Your task to perform on an android device: Go to CNN.com Image 0: 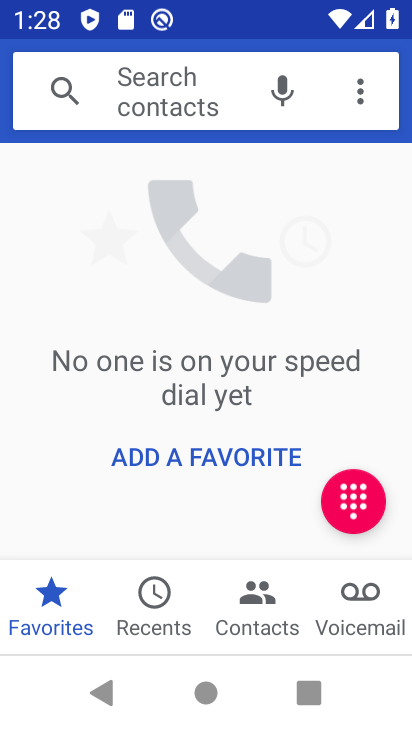
Step 0: press home button
Your task to perform on an android device: Go to CNN.com Image 1: 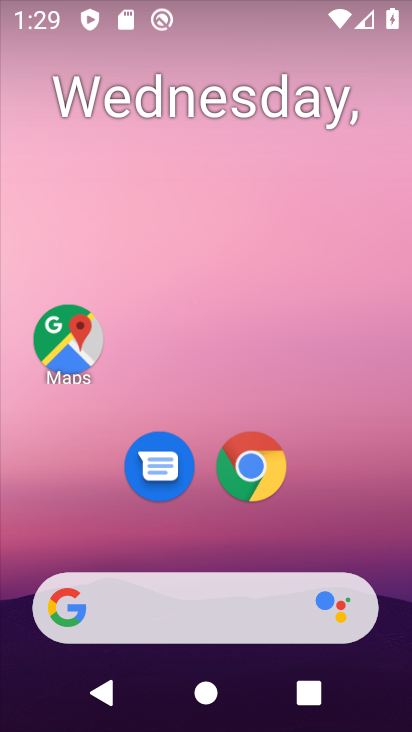
Step 1: click (249, 471)
Your task to perform on an android device: Go to CNN.com Image 2: 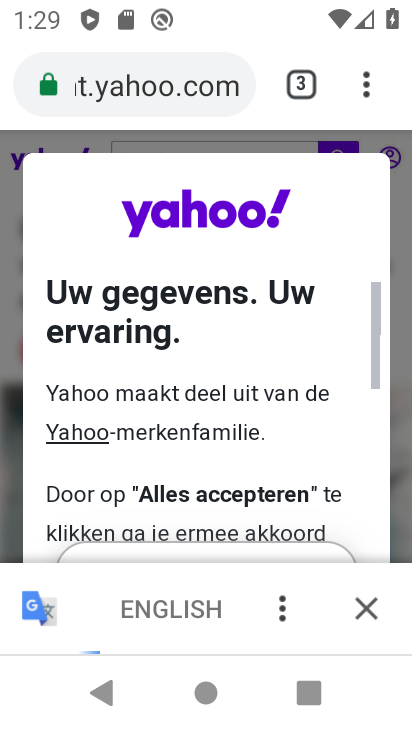
Step 2: click (156, 91)
Your task to perform on an android device: Go to CNN.com Image 3: 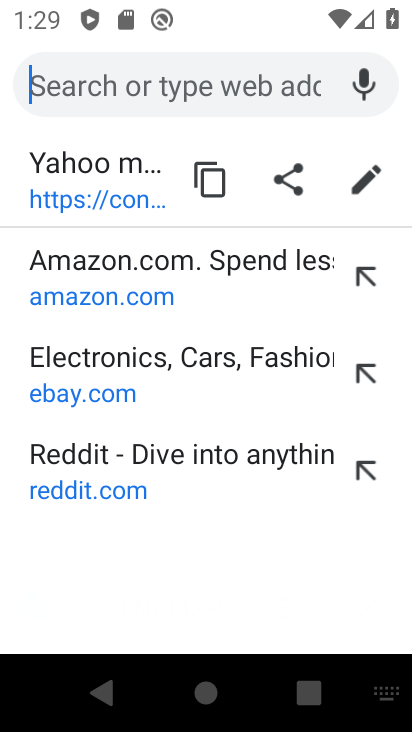
Step 3: type "cnn.com"
Your task to perform on an android device: Go to CNN.com Image 4: 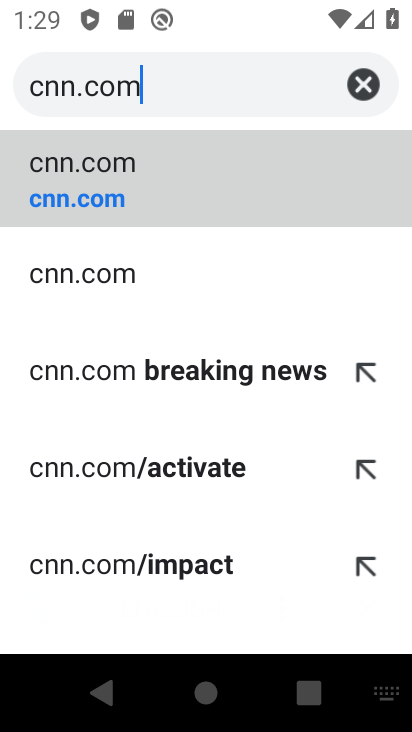
Step 4: click (135, 290)
Your task to perform on an android device: Go to CNN.com Image 5: 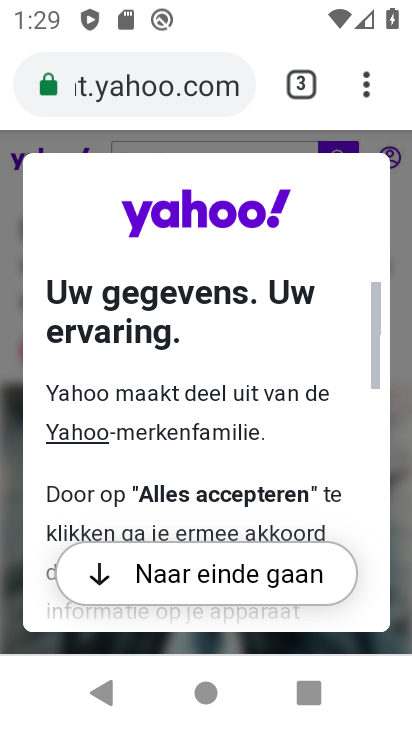
Step 5: task complete